Your task to perform on an android device: Set the phone to "Do not disturb". Image 0: 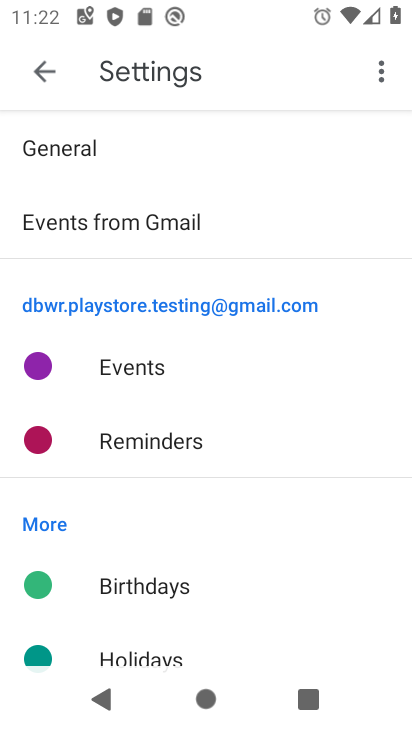
Step 0: press home button
Your task to perform on an android device: Set the phone to "Do not disturb". Image 1: 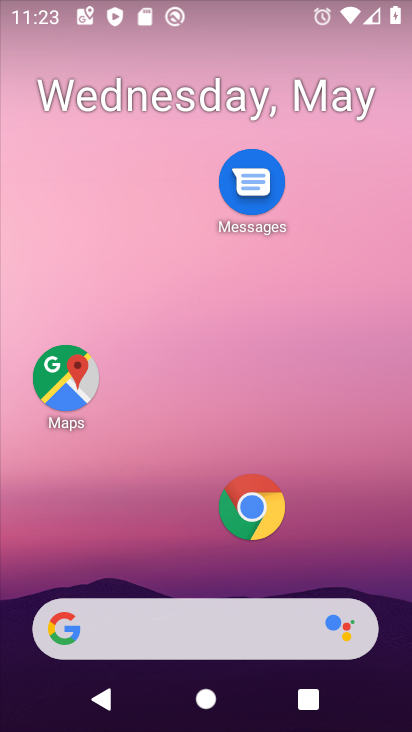
Step 1: drag from (209, 6) to (195, 547)
Your task to perform on an android device: Set the phone to "Do not disturb". Image 2: 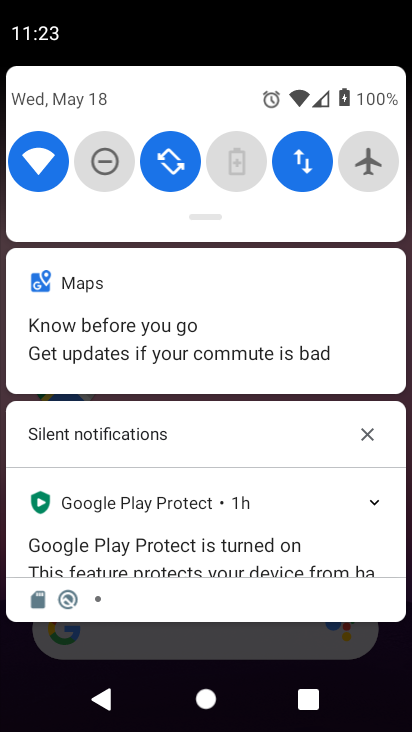
Step 2: click (105, 155)
Your task to perform on an android device: Set the phone to "Do not disturb". Image 3: 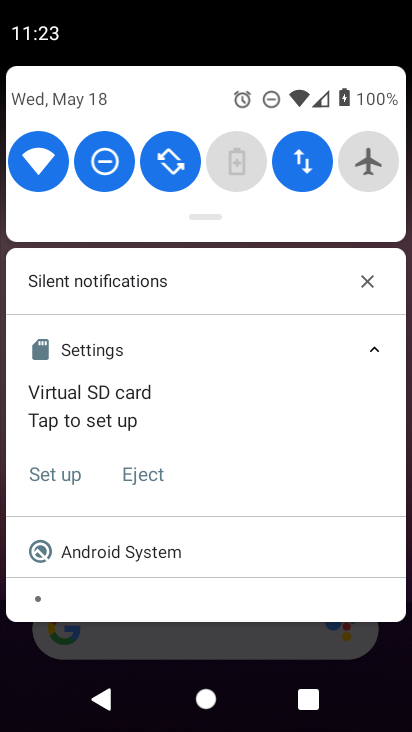
Step 3: task complete